Your task to perform on an android device: change the clock style Image 0: 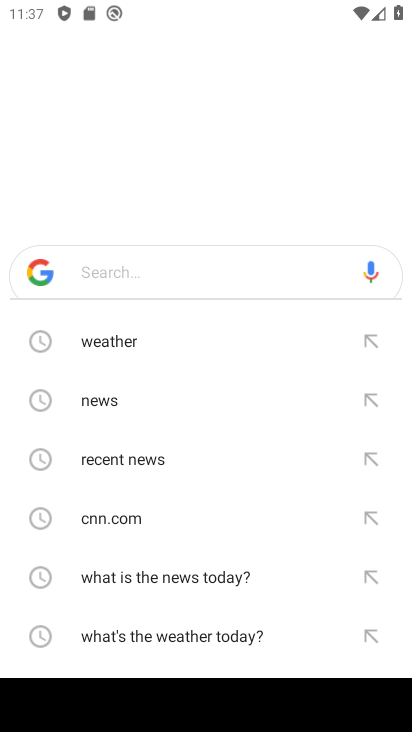
Step 0: press home button
Your task to perform on an android device: change the clock style Image 1: 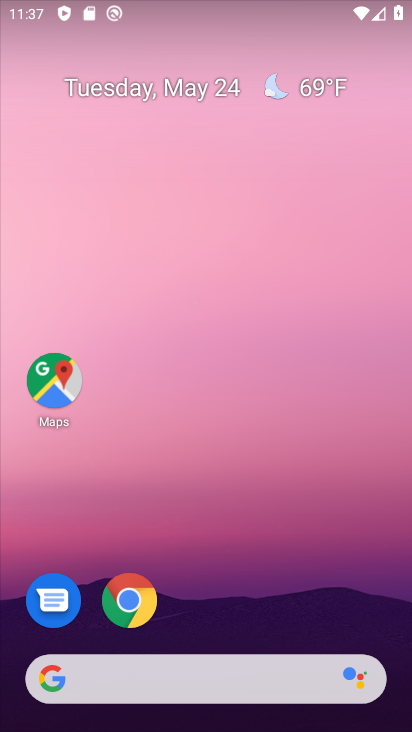
Step 1: drag from (371, 609) to (368, 216)
Your task to perform on an android device: change the clock style Image 2: 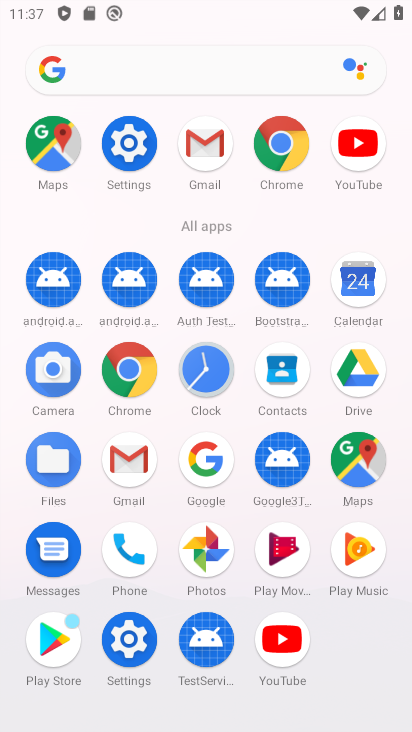
Step 2: click (202, 381)
Your task to perform on an android device: change the clock style Image 3: 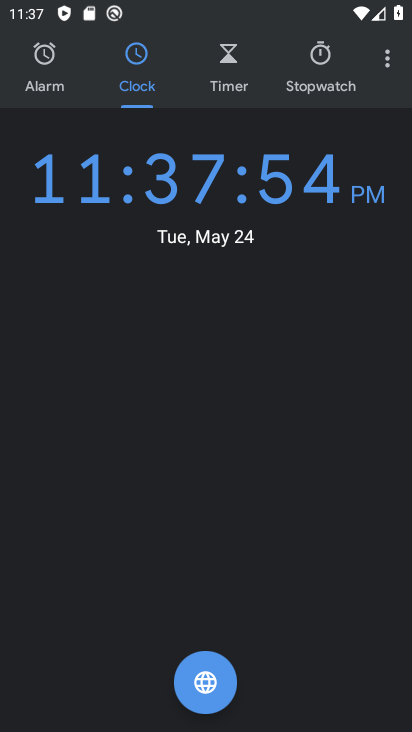
Step 3: click (391, 79)
Your task to perform on an android device: change the clock style Image 4: 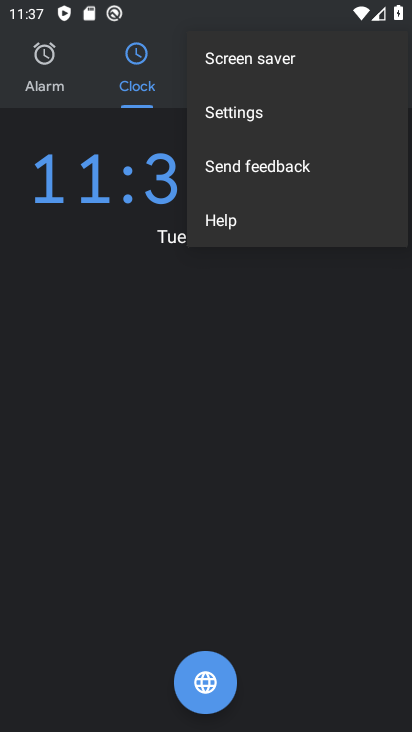
Step 4: click (332, 115)
Your task to perform on an android device: change the clock style Image 5: 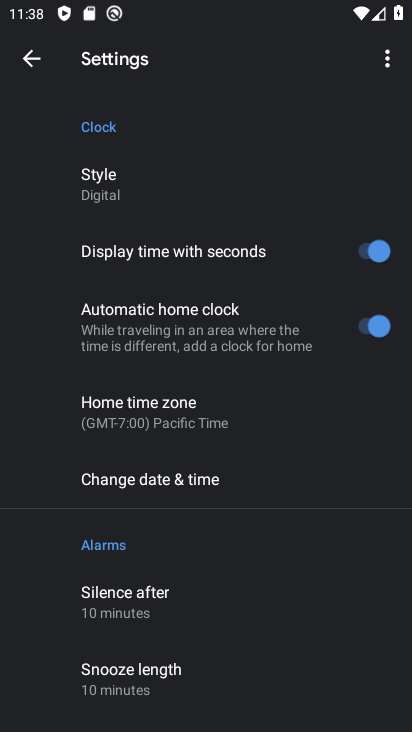
Step 5: drag from (318, 555) to (317, 477)
Your task to perform on an android device: change the clock style Image 6: 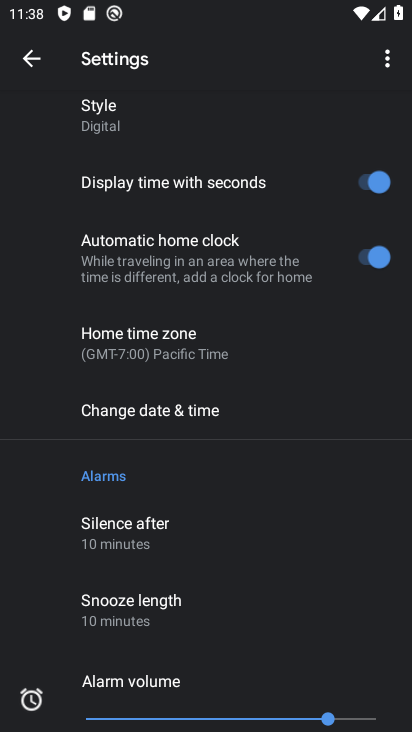
Step 6: drag from (305, 577) to (318, 498)
Your task to perform on an android device: change the clock style Image 7: 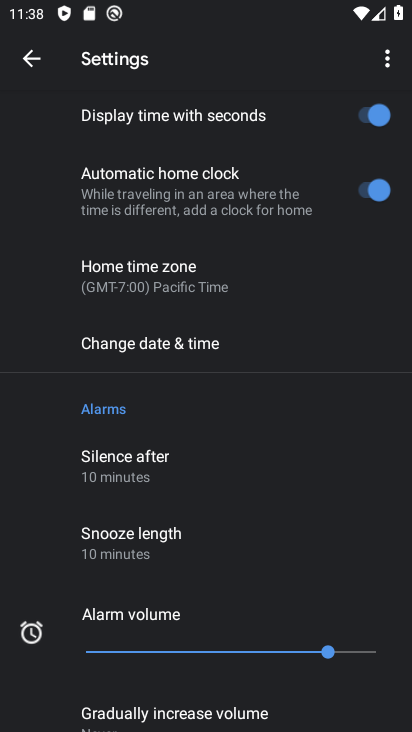
Step 7: drag from (299, 563) to (313, 479)
Your task to perform on an android device: change the clock style Image 8: 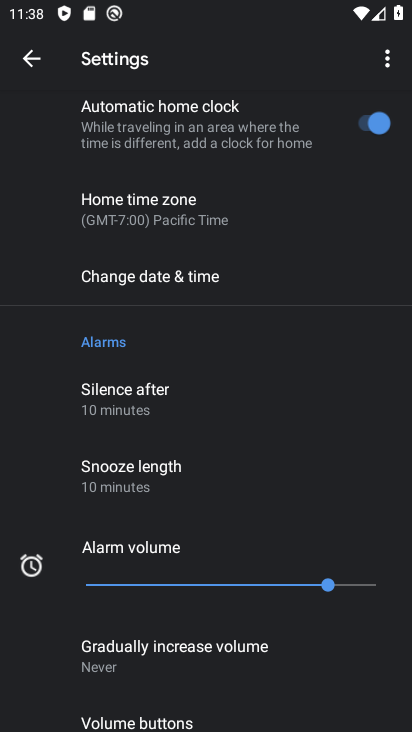
Step 8: drag from (304, 594) to (300, 513)
Your task to perform on an android device: change the clock style Image 9: 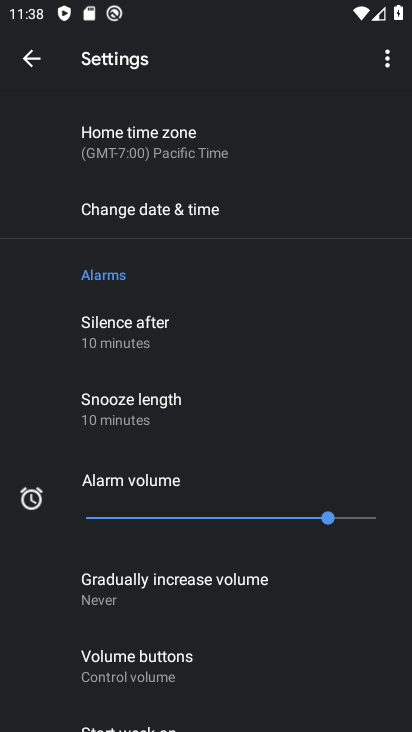
Step 9: drag from (313, 607) to (308, 519)
Your task to perform on an android device: change the clock style Image 10: 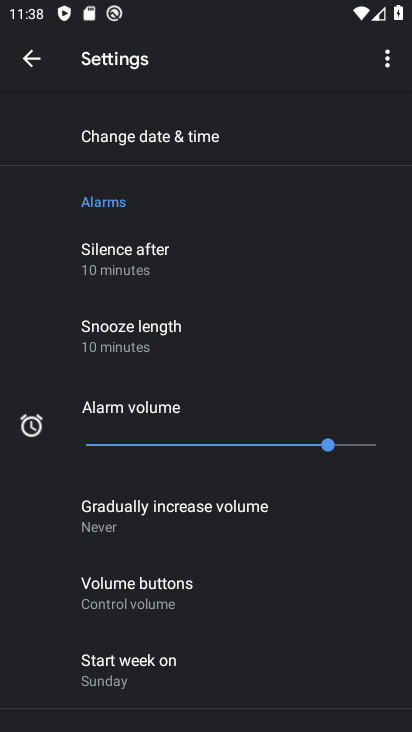
Step 10: drag from (326, 581) to (328, 498)
Your task to perform on an android device: change the clock style Image 11: 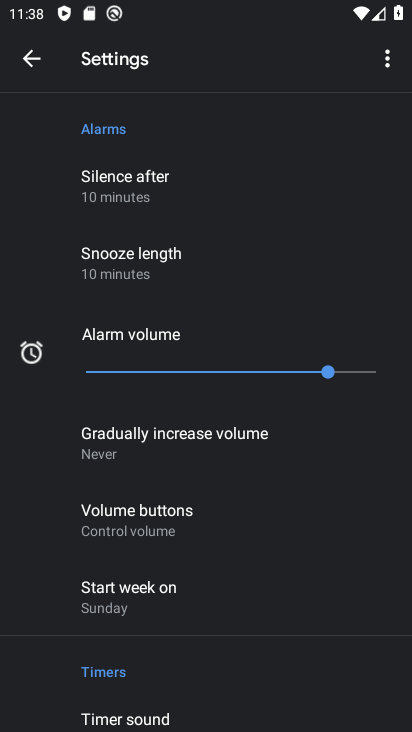
Step 11: drag from (341, 618) to (364, 499)
Your task to perform on an android device: change the clock style Image 12: 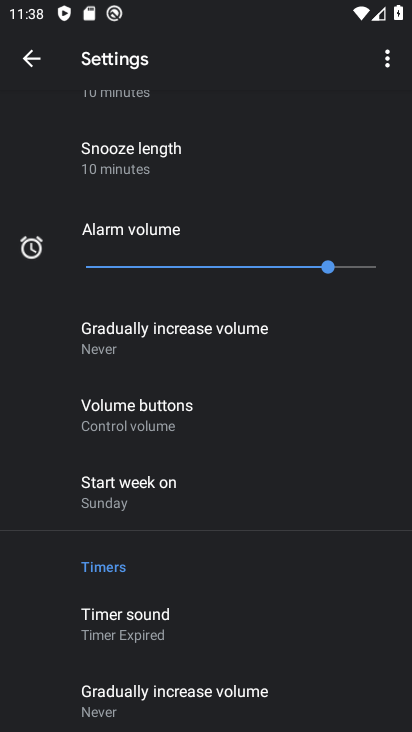
Step 12: drag from (334, 641) to (349, 356)
Your task to perform on an android device: change the clock style Image 13: 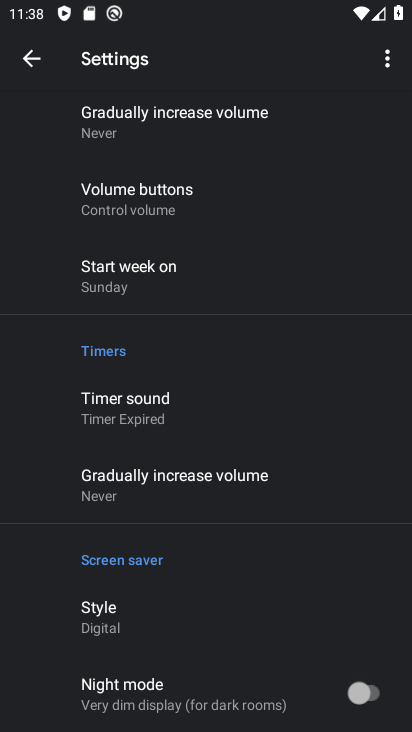
Step 13: drag from (352, 259) to (348, 374)
Your task to perform on an android device: change the clock style Image 14: 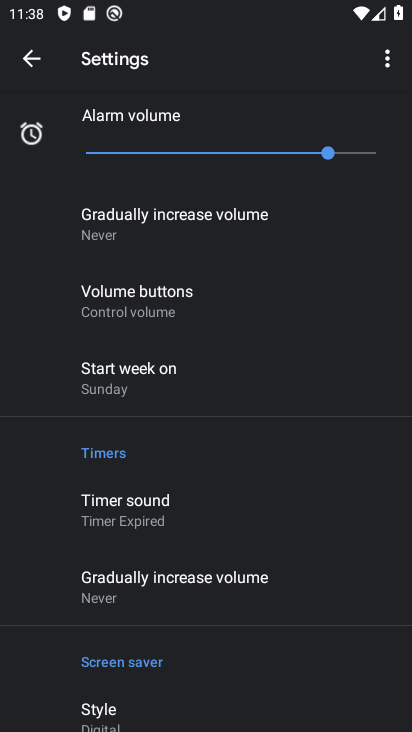
Step 14: drag from (357, 296) to (342, 395)
Your task to perform on an android device: change the clock style Image 15: 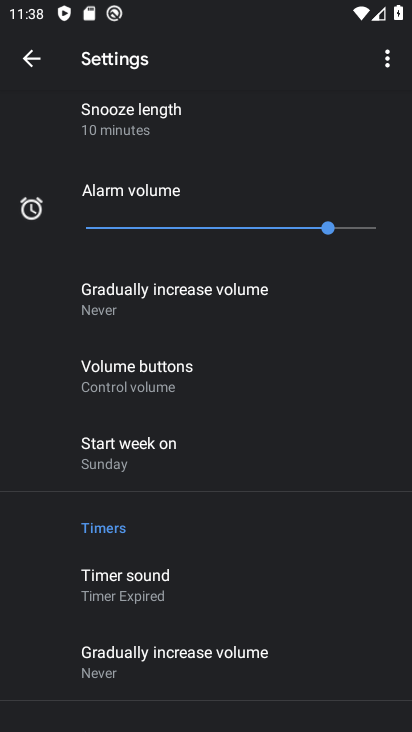
Step 15: drag from (354, 203) to (342, 343)
Your task to perform on an android device: change the clock style Image 16: 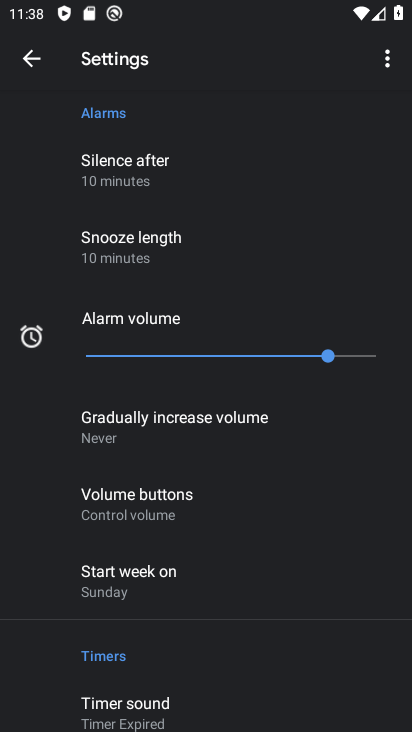
Step 16: drag from (362, 194) to (353, 351)
Your task to perform on an android device: change the clock style Image 17: 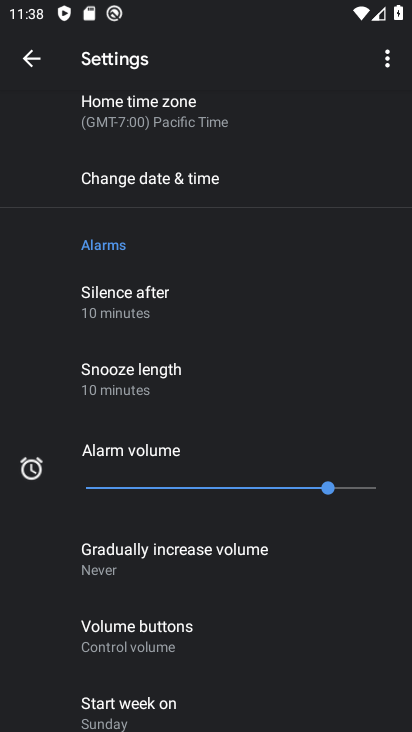
Step 17: drag from (364, 193) to (355, 322)
Your task to perform on an android device: change the clock style Image 18: 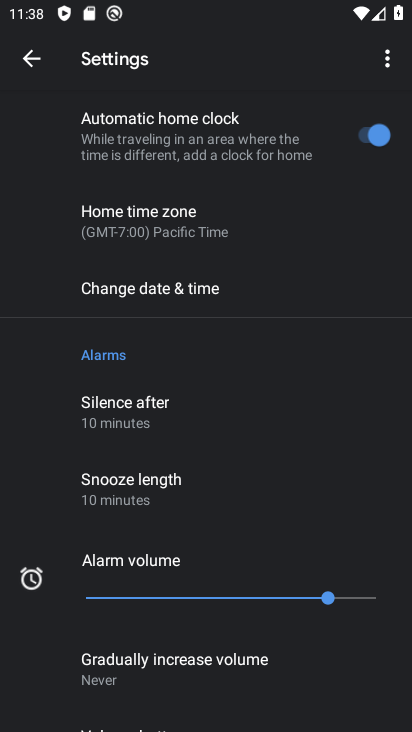
Step 18: drag from (320, 158) to (321, 305)
Your task to perform on an android device: change the clock style Image 19: 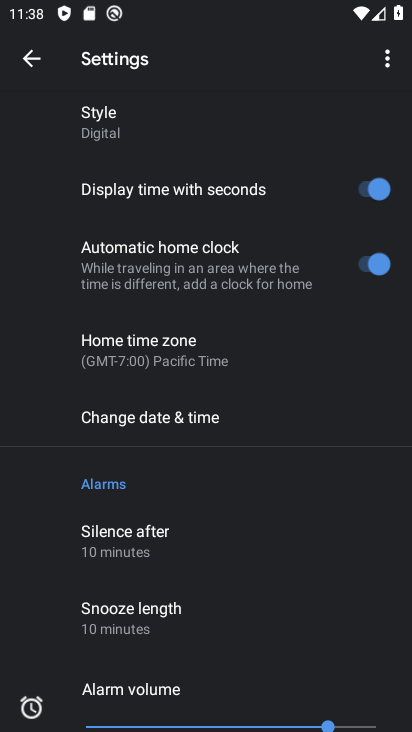
Step 19: drag from (316, 189) to (306, 301)
Your task to perform on an android device: change the clock style Image 20: 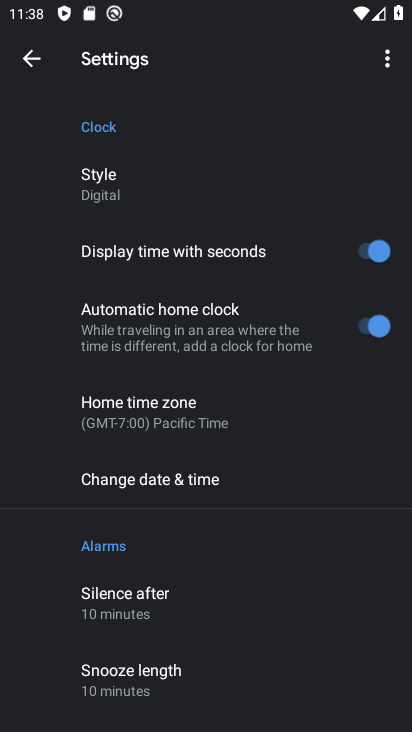
Step 20: click (96, 196)
Your task to perform on an android device: change the clock style Image 21: 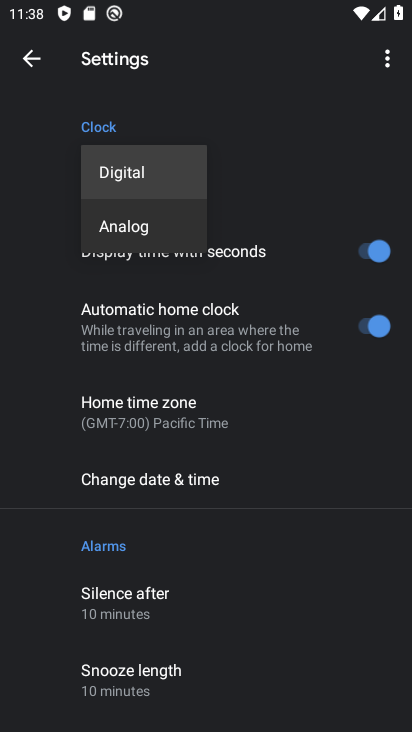
Step 21: click (161, 229)
Your task to perform on an android device: change the clock style Image 22: 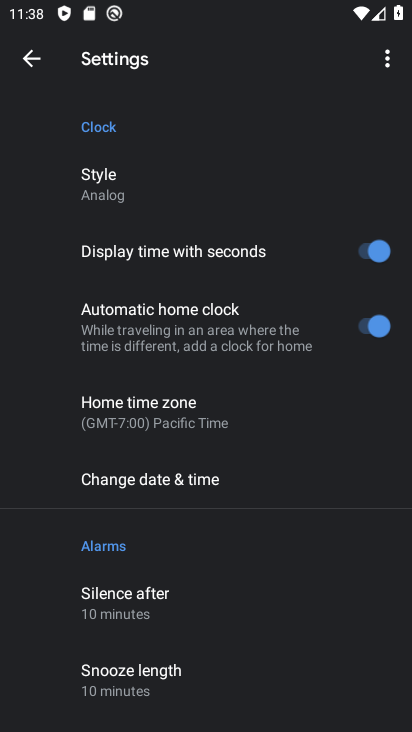
Step 22: task complete